Your task to perform on an android device: Go to eBay Image 0: 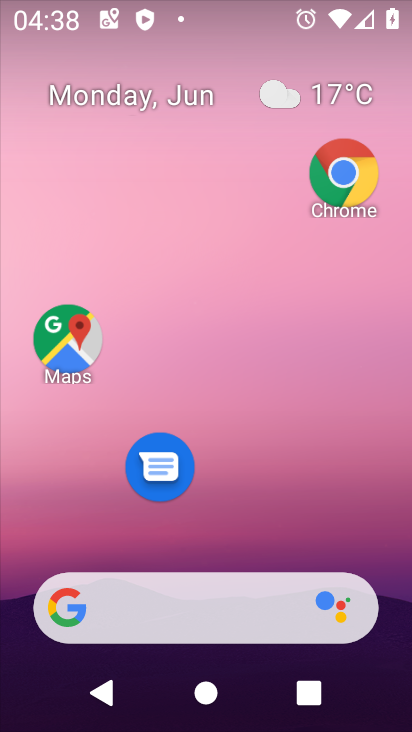
Step 0: click (372, 177)
Your task to perform on an android device: Go to eBay Image 1: 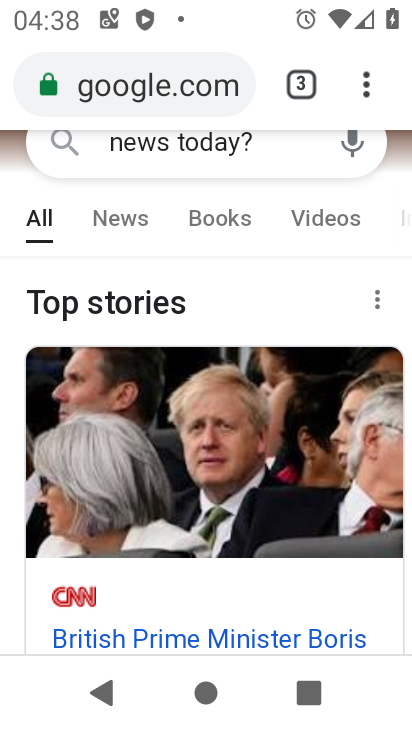
Step 1: click (176, 78)
Your task to perform on an android device: Go to eBay Image 2: 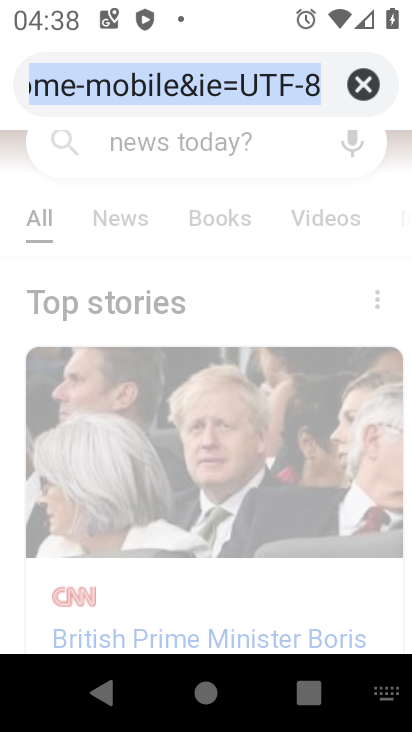
Step 2: type "eBay"
Your task to perform on an android device: Go to eBay Image 3: 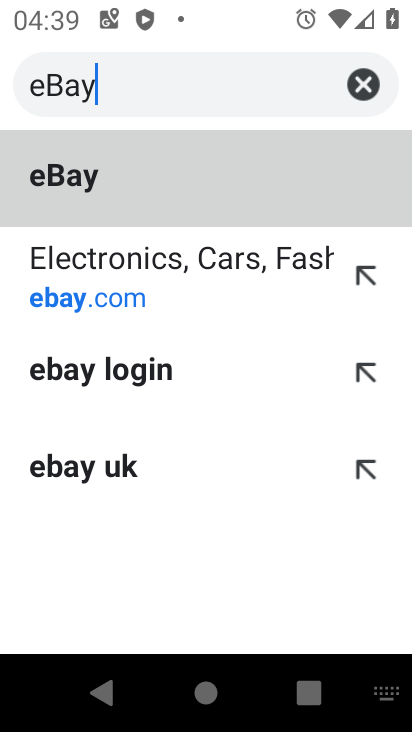
Step 3: click (160, 201)
Your task to perform on an android device: Go to eBay Image 4: 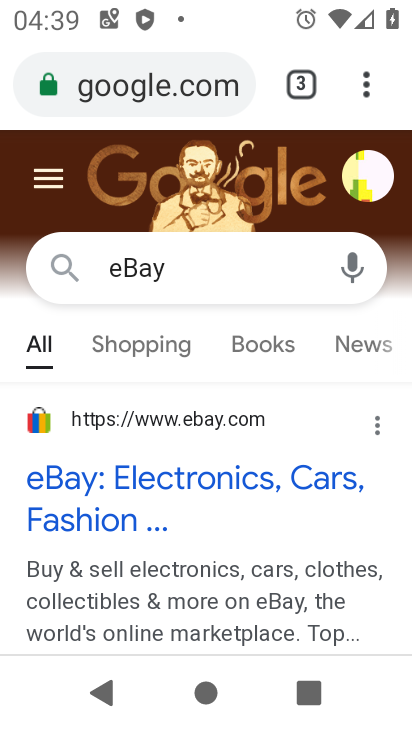
Step 4: task complete